Your task to perform on an android device: Check the news Image 0: 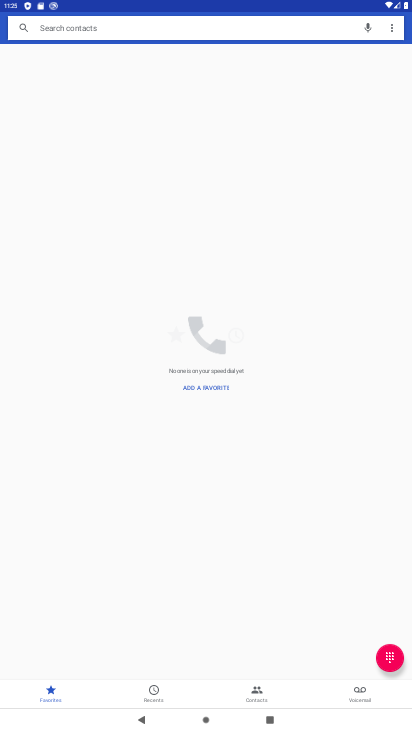
Step 0: press home button
Your task to perform on an android device: Check the news Image 1: 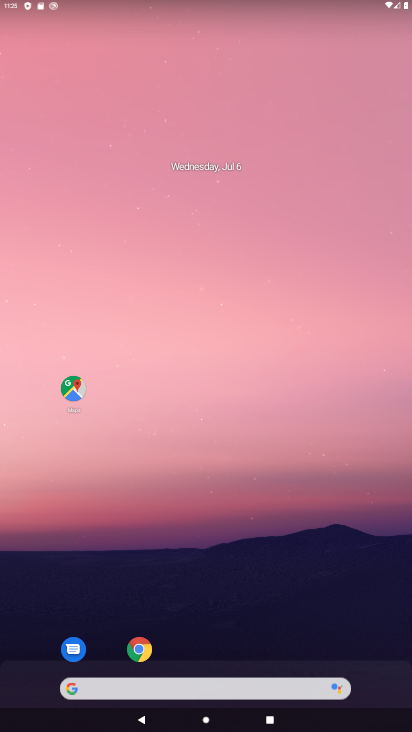
Step 1: drag from (210, 696) to (254, 87)
Your task to perform on an android device: Check the news Image 2: 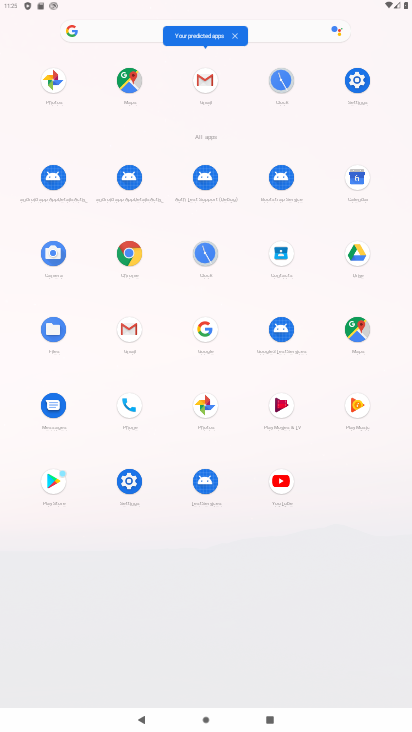
Step 2: click (122, 266)
Your task to perform on an android device: Check the news Image 3: 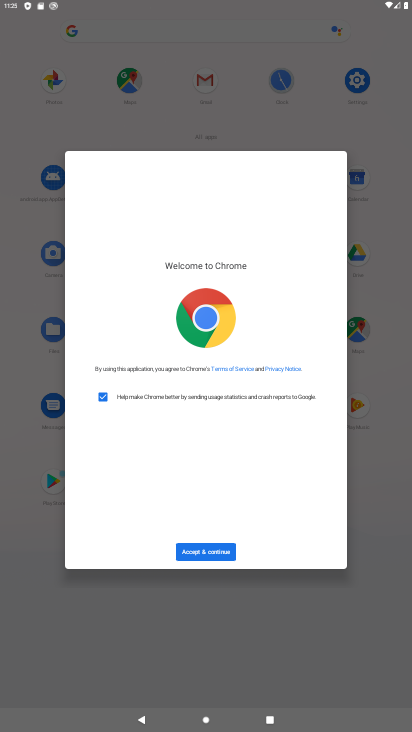
Step 3: click (224, 556)
Your task to perform on an android device: Check the news Image 4: 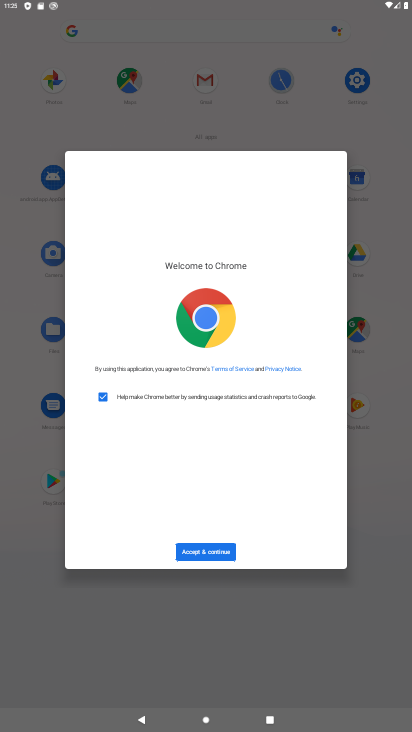
Step 4: click (224, 556)
Your task to perform on an android device: Check the news Image 5: 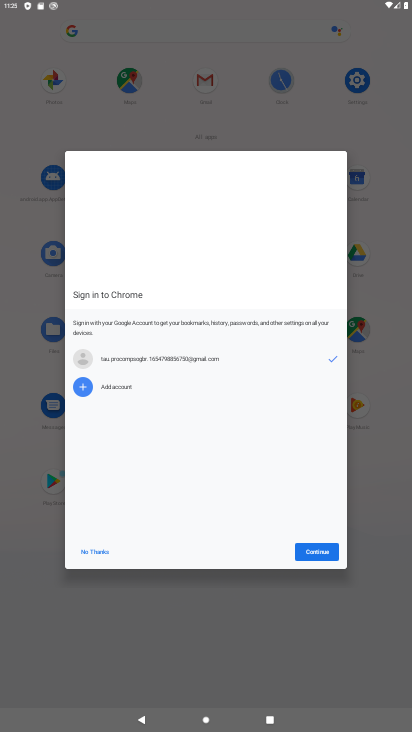
Step 5: click (313, 548)
Your task to perform on an android device: Check the news Image 6: 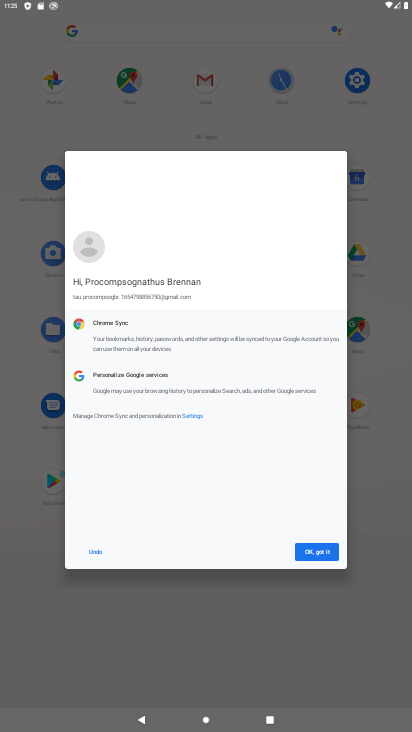
Step 6: click (334, 552)
Your task to perform on an android device: Check the news Image 7: 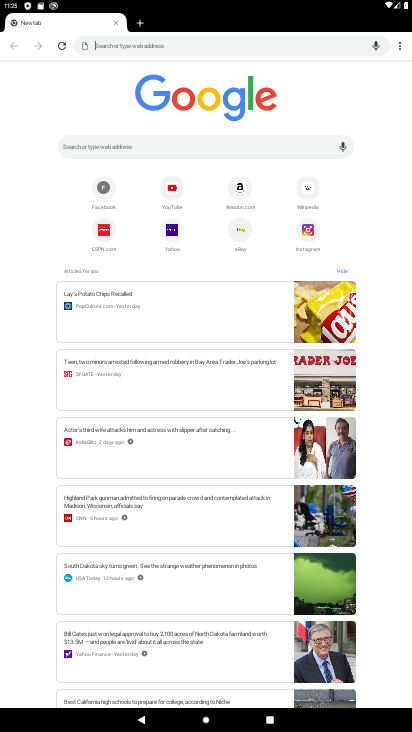
Step 7: task complete